Your task to perform on an android device: Open internet settings Image 0: 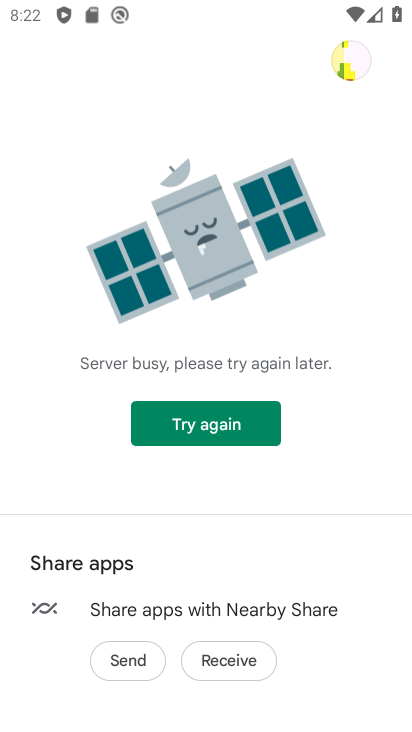
Step 0: press home button
Your task to perform on an android device: Open internet settings Image 1: 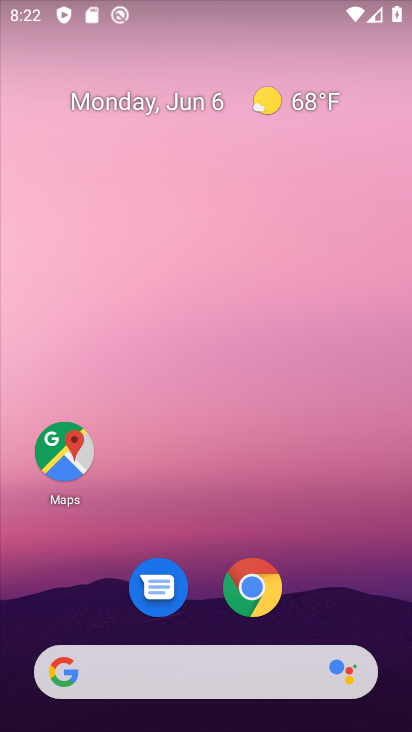
Step 1: drag from (205, 650) to (191, 141)
Your task to perform on an android device: Open internet settings Image 2: 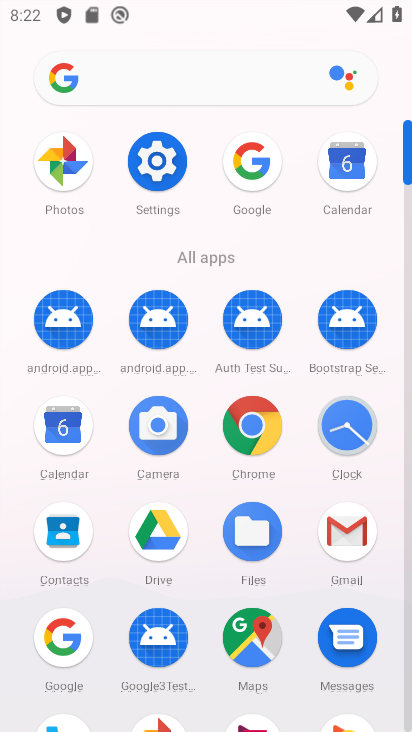
Step 2: click (152, 145)
Your task to perform on an android device: Open internet settings Image 3: 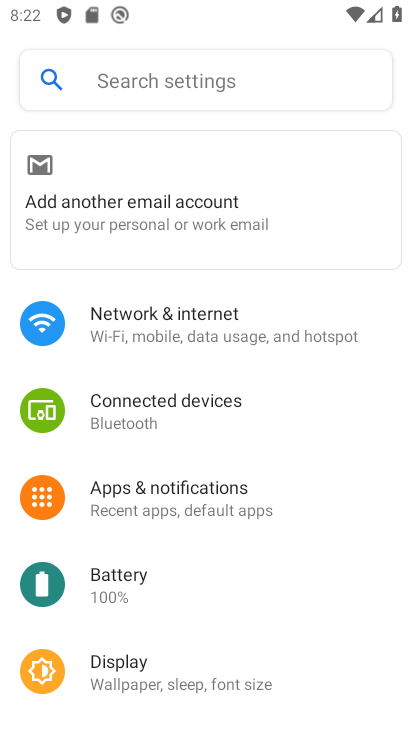
Step 3: click (193, 332)
Your task to perform on an android device: Open internet settings Image 4: 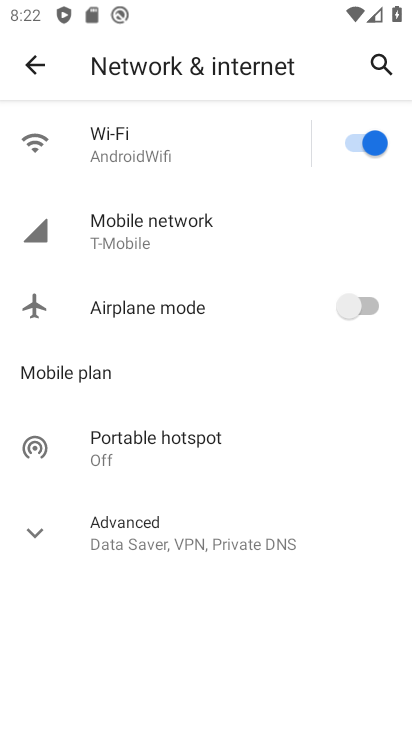
Step 4: click (193, 332)
Your task to perform on an android device: Open internet settings Image 5: 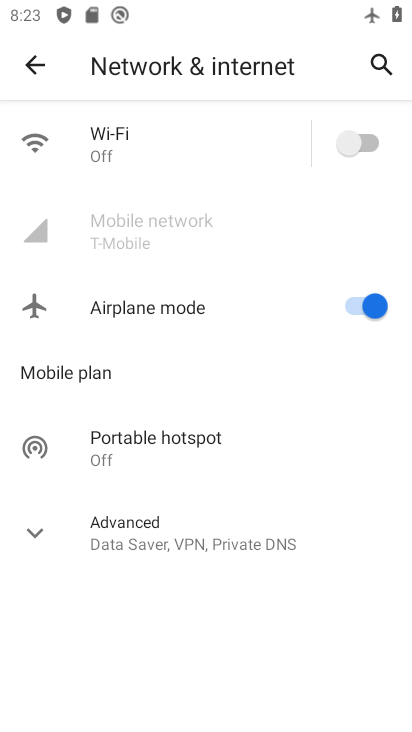
Step 5: task complete